Your task to perform on an android device: change the upload size in google photos Image 0: 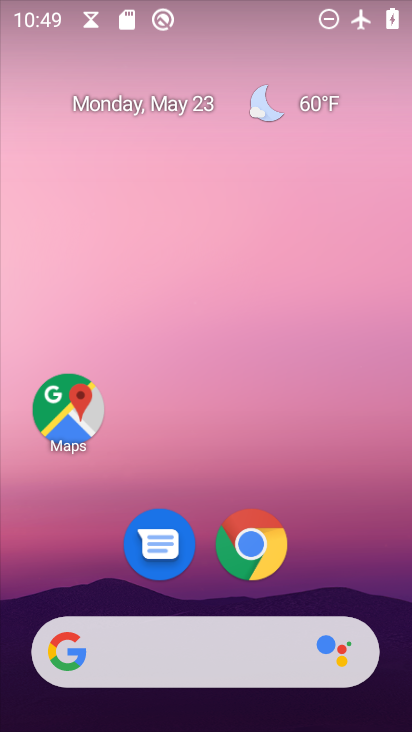
Step 0: drag from (300, 579) to (161, 251)
Your task to perform on an android device: change the upload size in google photos Image 1: 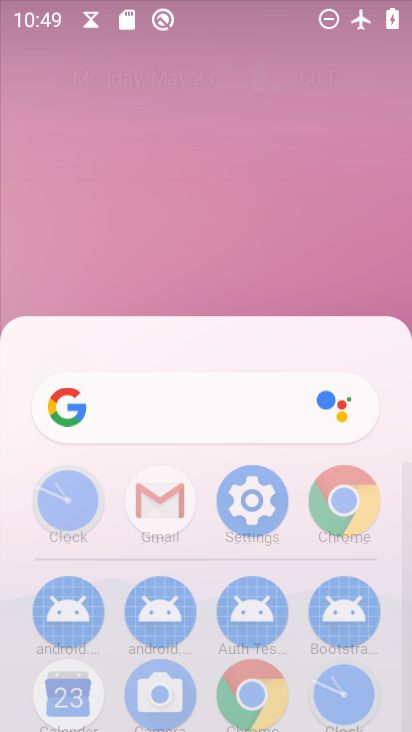
Step 1: click (82, 122)
Your task to perform on an android device: change the upload size in google photos Image 2: 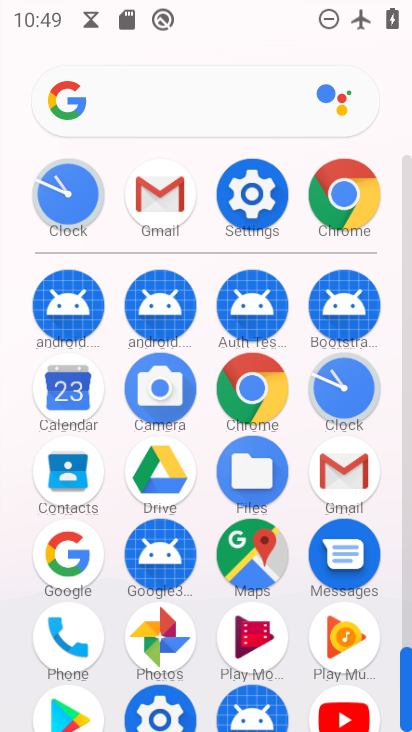
Step 2: click (170, 656)
Your task to perform on an android device: change the upload size in google photos Image 3: 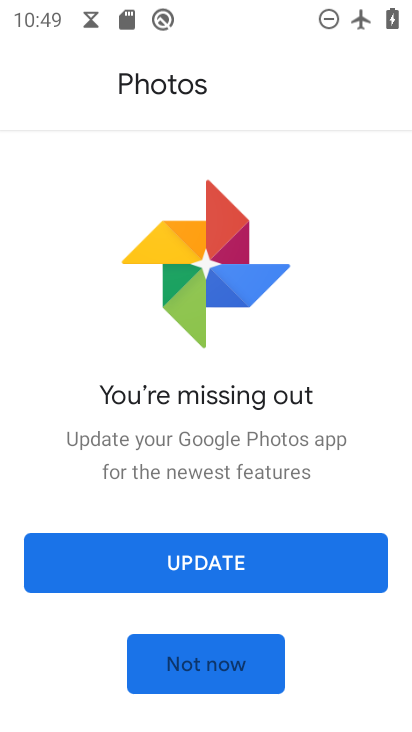
Step 3: click (183, 676)
Your task to perform on an android device: change the upload size in google photos Image 4: 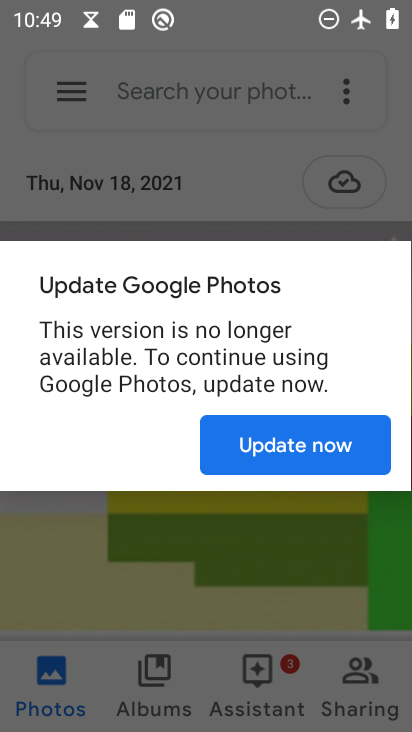
Step 4: click (255, 470)
Your task to perform on an android device: change the upload size in google photos Image 5: 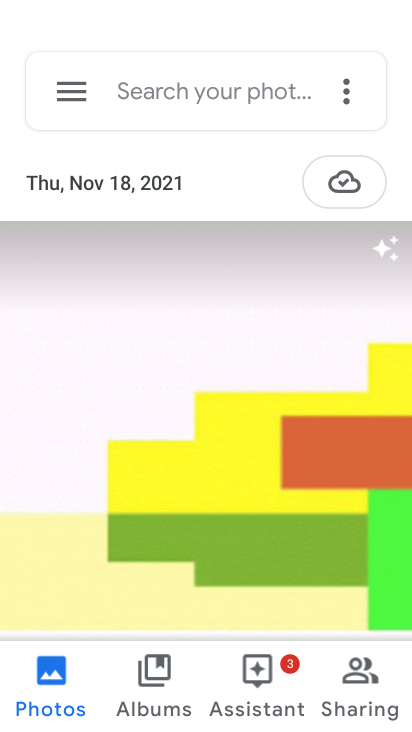
Step 5: press back button
Your task to perform on an android device: change the upload size in google photos Image 6: 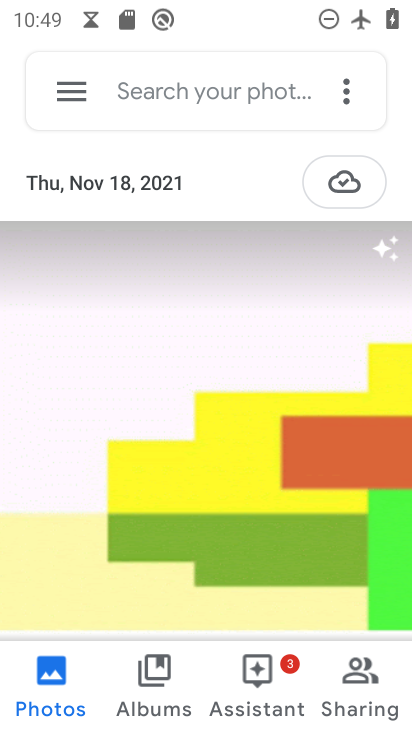
Step 6: click (74, 98)
Your task to perform on an android device: change the upload size in google photos Image 7: 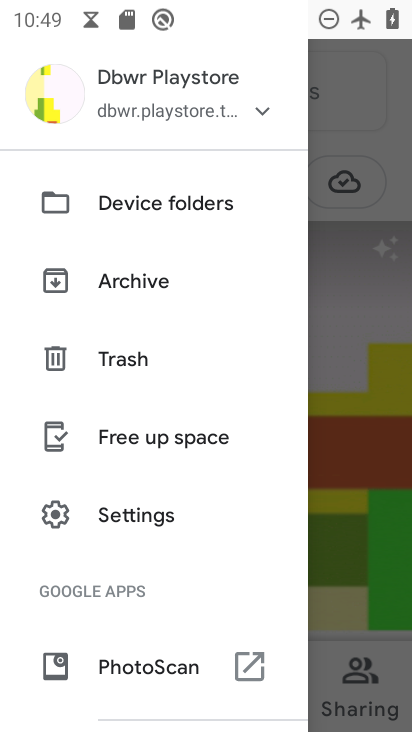
Step 7: click (131, 527)
Your task to perform on an android device: change the upload size in google photos Image 8: 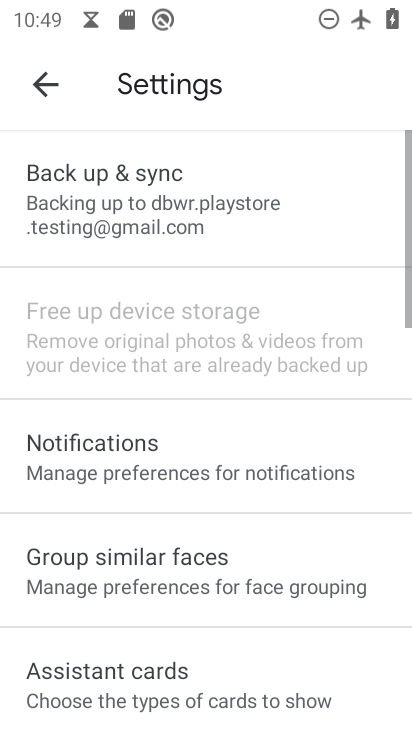
Step 8: click (104, 230)
Your task to perform on an android device: change the upload size in google photos Image 9: 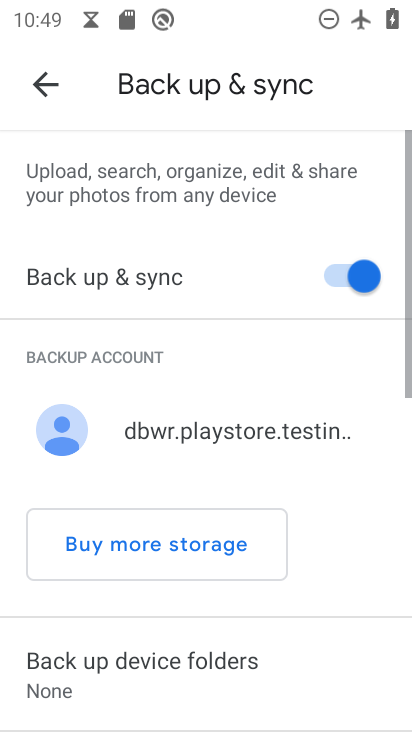
Step 9: drag from (152, 660) to (123, 233)
Your task to perform on an android device: change the upload size in google photos Image 10: 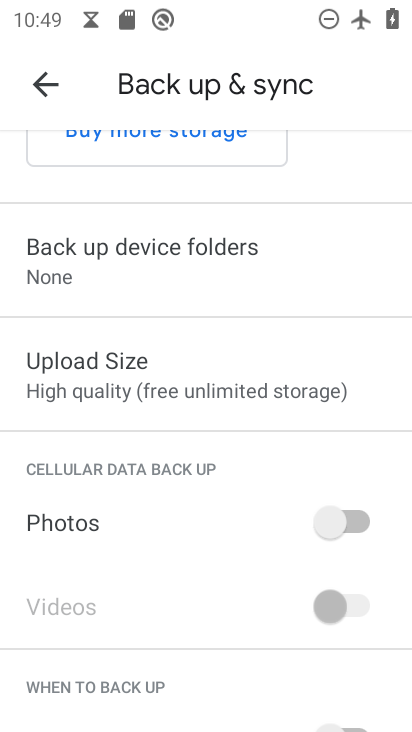
Step 10: click (105, 384)
Your task to perform on an android device: change the upload size in google photos Image 11: 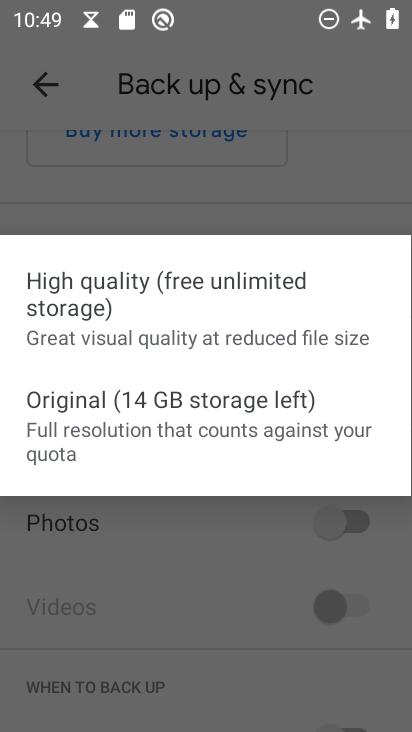
Step 11: click (92, 425)
Your task to perform on an android device: change the upload size in google photos Image 12: 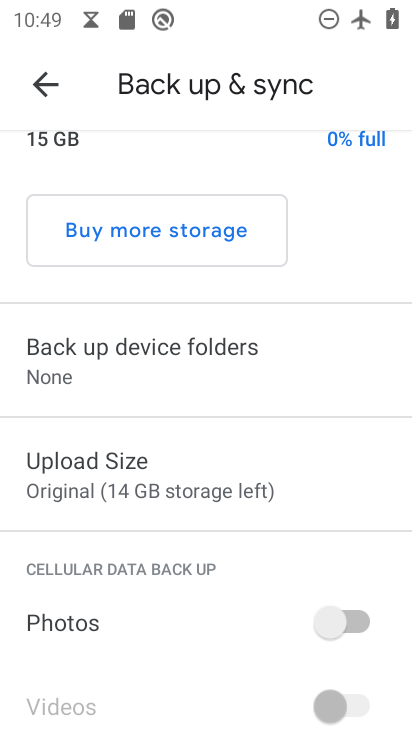
Step 12: task complete